Your task to perform on an android device: change notification settings in the gmail app Image 0: 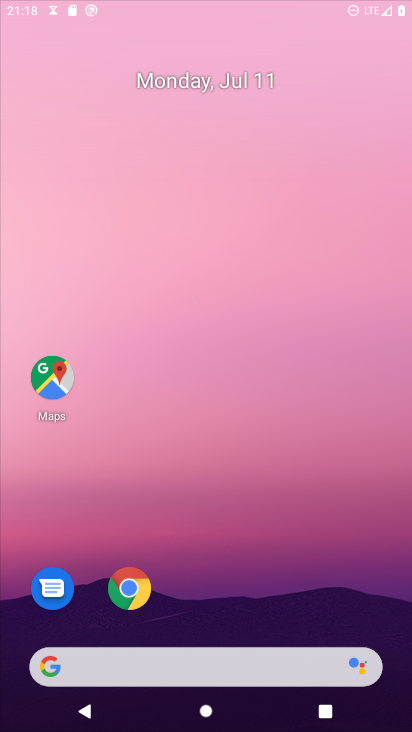
Step 0: press home button
Your task to perform on an android device: change notification settings in the gmail app Image 1: 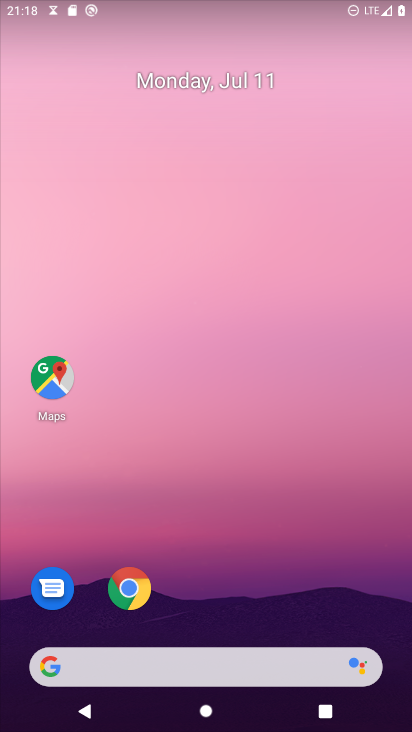
Step 1: drag from (218, 614) to (235, 56)
Your task to perform on an android device: change notification settings in the gmail app Image 2: 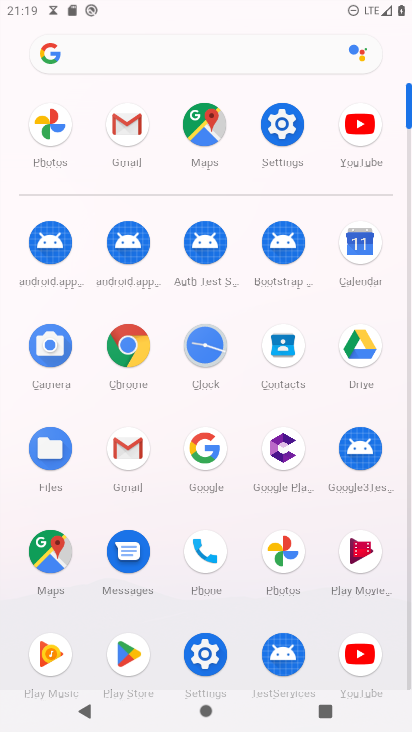
Step 2: click (118, 133)
Your task to perform on an android device: change notification settings in the gmail app Image 3: 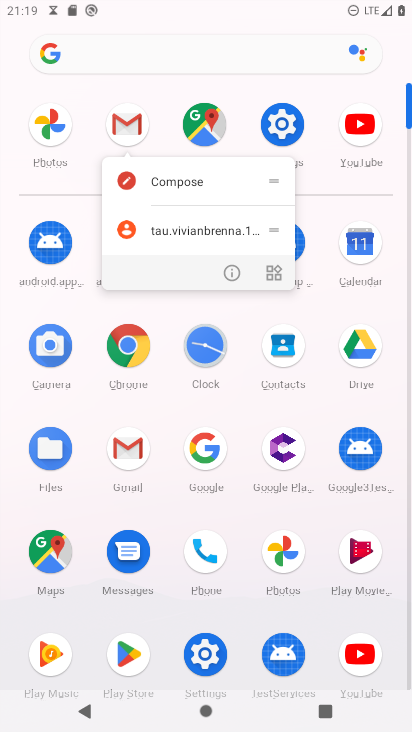
Step 3: click (133, 118)
Your task to perform on an android device: change notification settings in the gmail app Image 4: 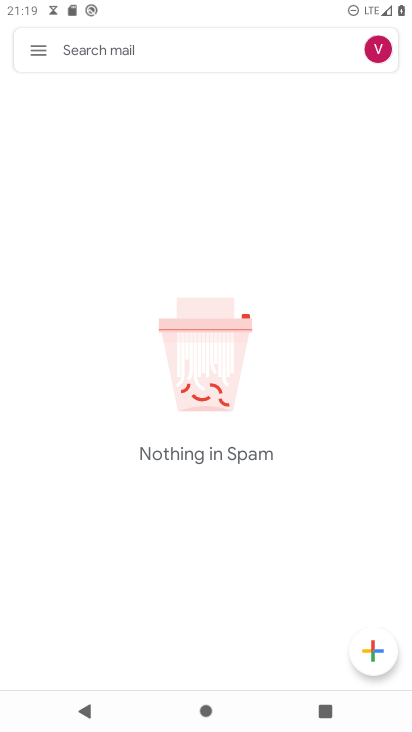
Step 4: click (37, 54)
Your task to perform on an android device: change notification settings in the gmail app Image 5: 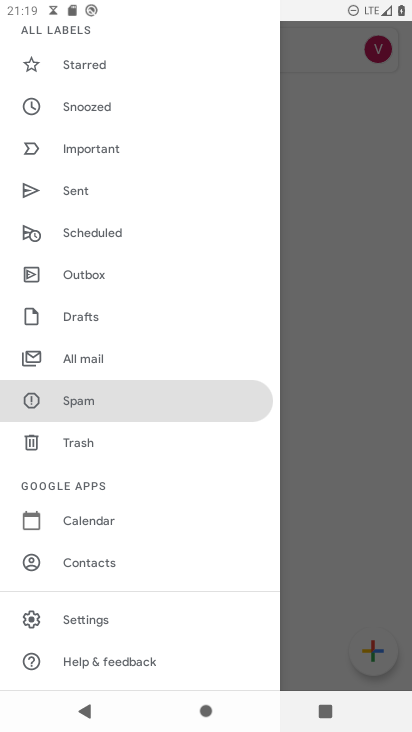
Step 5: click (97, 622)
Your task to perform on an android device: change notification settings in the gmail app Image 6: 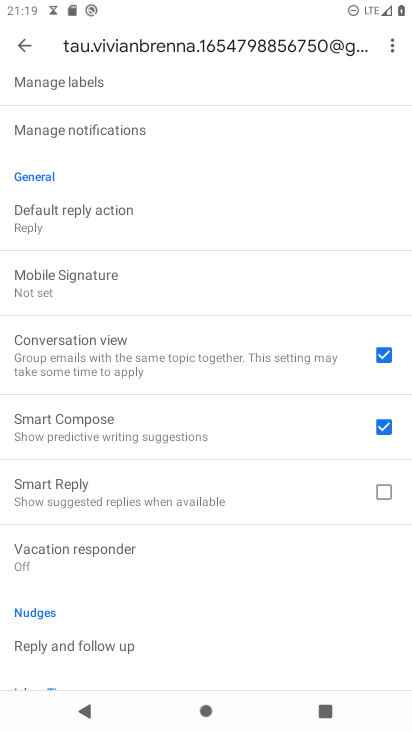
Step 6: click (71, 129)
Your task to perform on an android device: change notification settings in the gmail app Image 7: 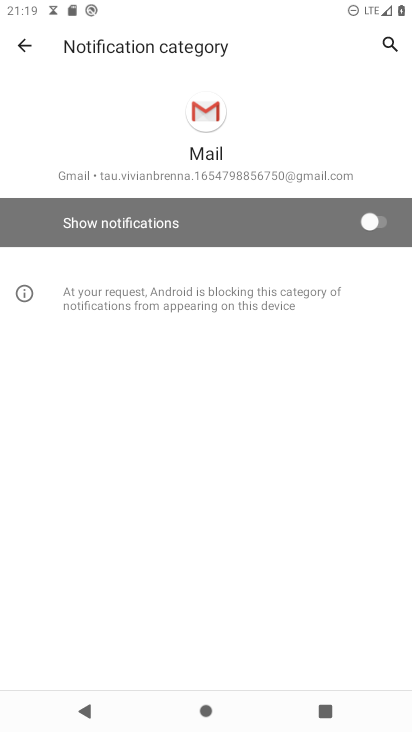
Step 7: click (366, 220)
Your task to perform on an android device: change notification settings in the gmail app Image 8: 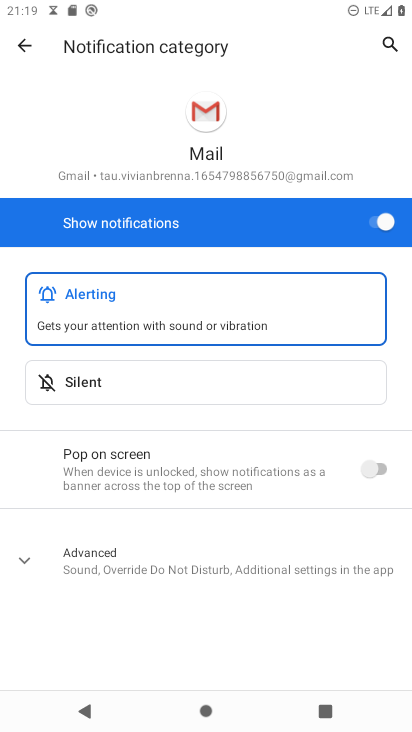
Step 8: task complete